Your task to perform on an android device: When is my next appointment? Image 0: 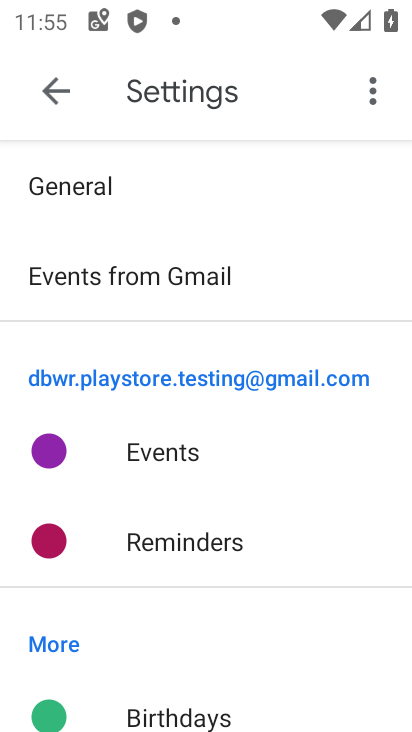
Step 0: press home button
Your task to perform on an android device: When is my next appointment? Image 1: 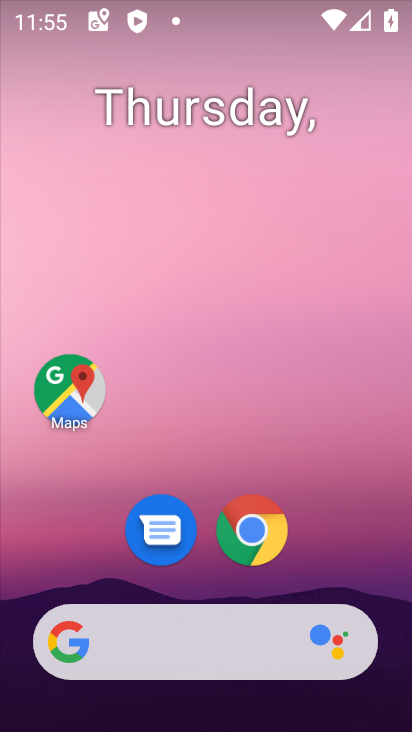
Step 1: drag from (335, 580) to (291, 144)
Your task to perform on an android device: When is my next appointment? Image 2: 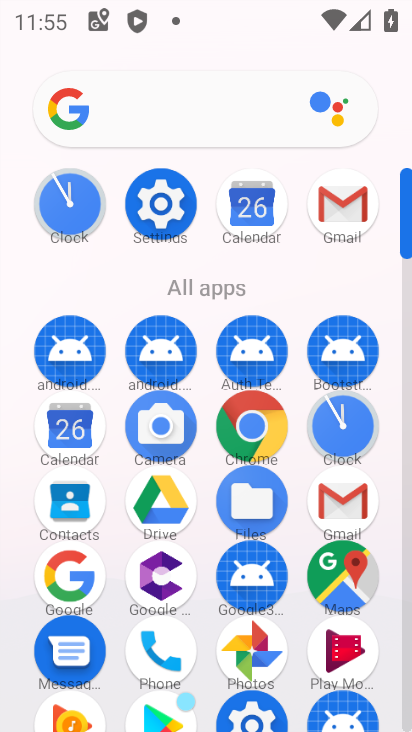
Step 2: click (252, 207)
Your task to perform on an android device: When is my next appointment? Image 3: 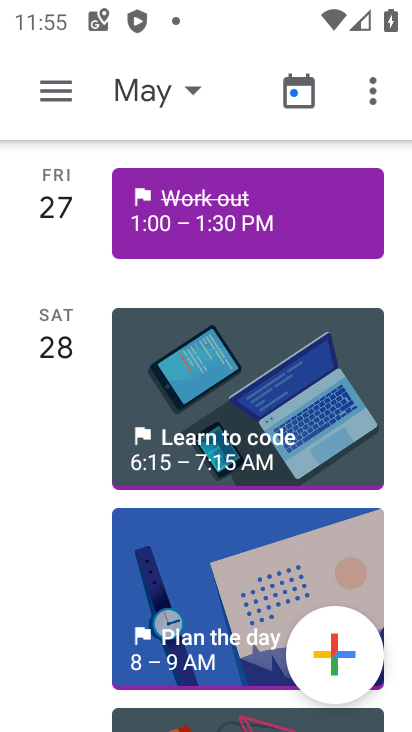
Step 3: click (194, 93)
Your task to perform on an android device: When is my next appointment? Image 4: 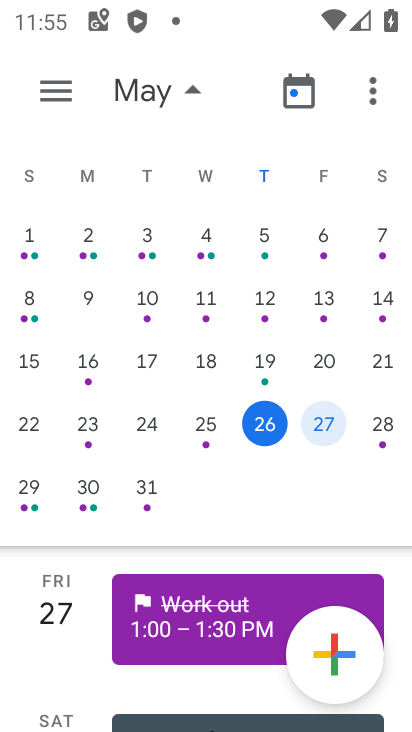
Step 4: click (325, 418)
Your task to perform on an android device: When is my next appointment? Image 5: 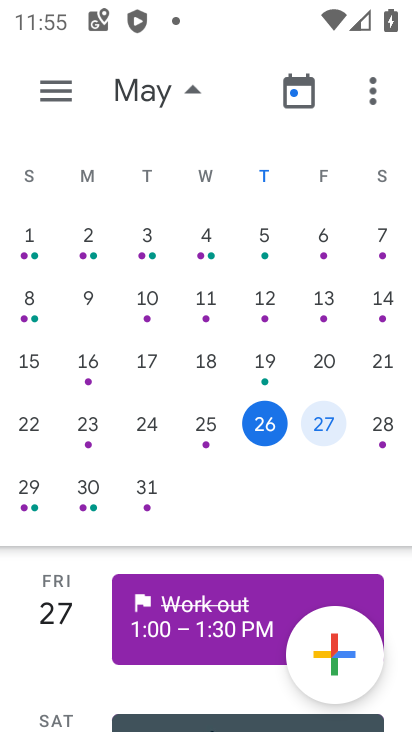
Step 5: click (325, 418)
Your task to perform on an android device: When is my next appointment? Image 6: 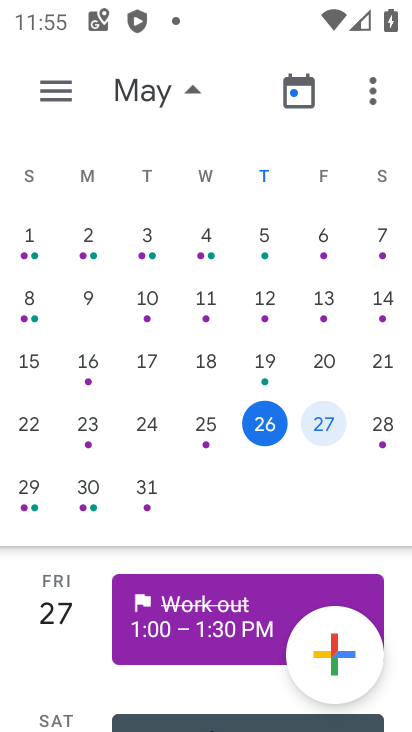
Step 6: click (56, 95)
Your task to perform on an android device: When is my next appointment? Image 7: 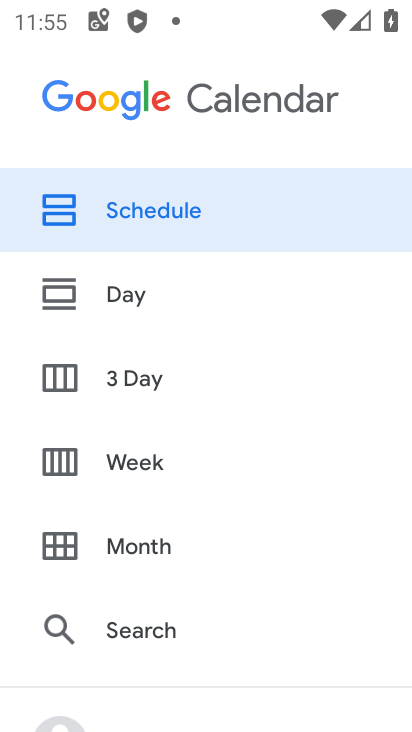
Step 7: click (134, 214)
Your task to perform on an android device: When is my next appointment? Image 8: 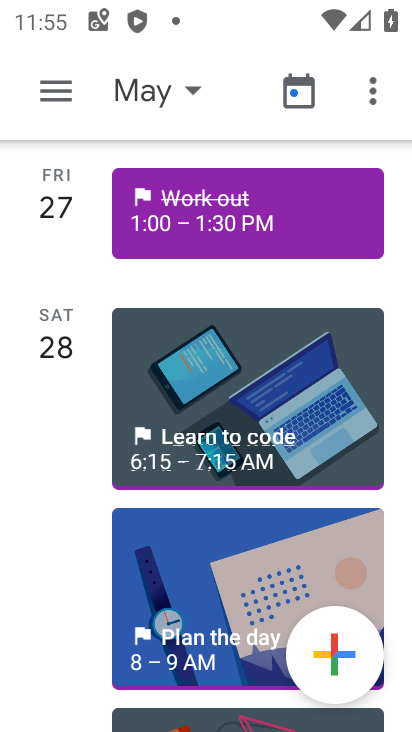
Step 8: task complete